Your task to perform on an android device: Open Wikipedia Image 0: 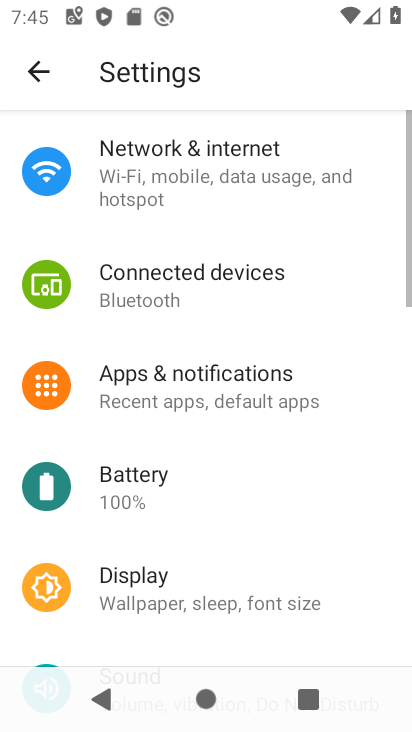
Step 0: press home button
Your task to perform on an android device: Open Wikipedia Image 1: 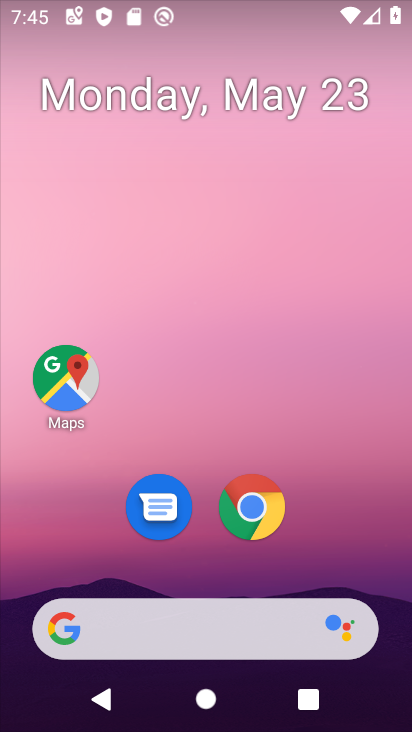
Step 1: drag from (323, 545) to (246, 106)
Your task to perform on an android device: Open Wikipedia Image 2: 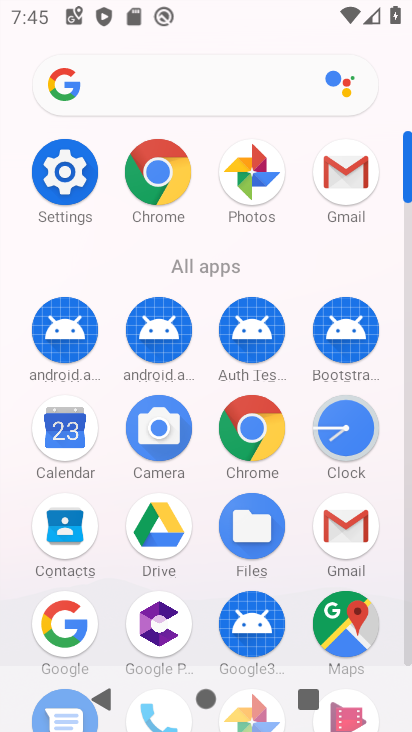
Step 2: click (237, 424)
Your task to perform on an android device: Open Wikipedia Image 3: 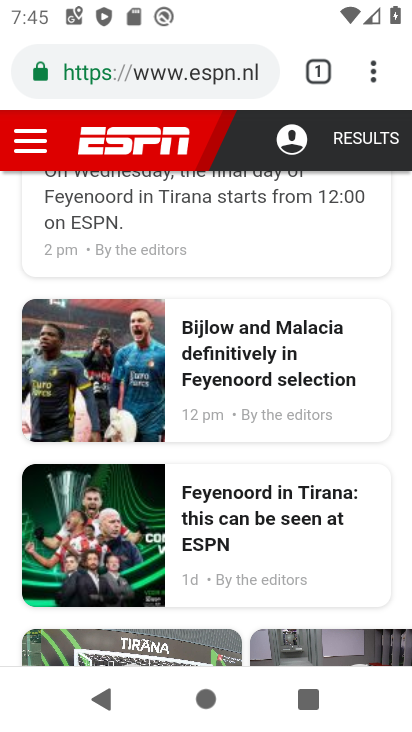
Step 3: click (320, 74)
Your task to perform on an android device: Open Wikipedia Image 4: 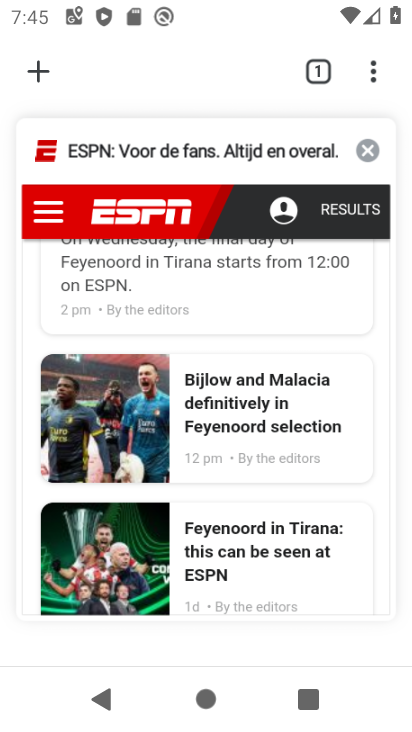
Step 4: click (27, 68)
Your task to perform on an android device: Open Wikipedia Image 5: 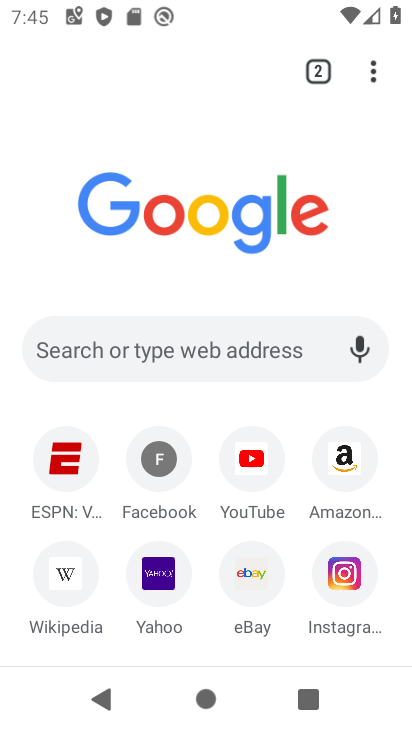
Step 5: click (57, 569)
Your task to perform on an android device: Open Wikipedia Image 6: 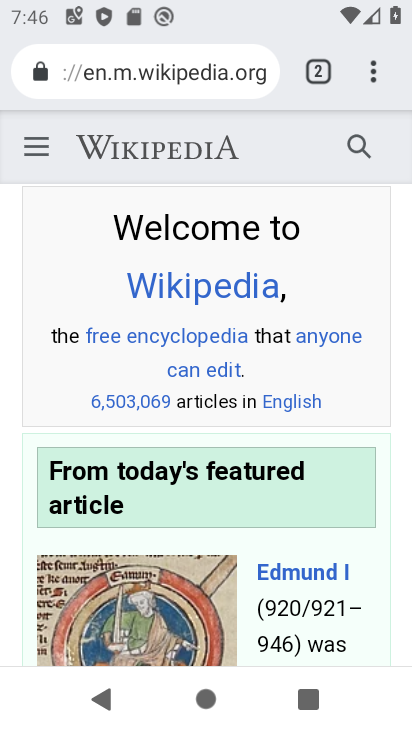
Step 6: task complete